Your task to perform on an android device: stop showing notifications on the lock screen Image 0: 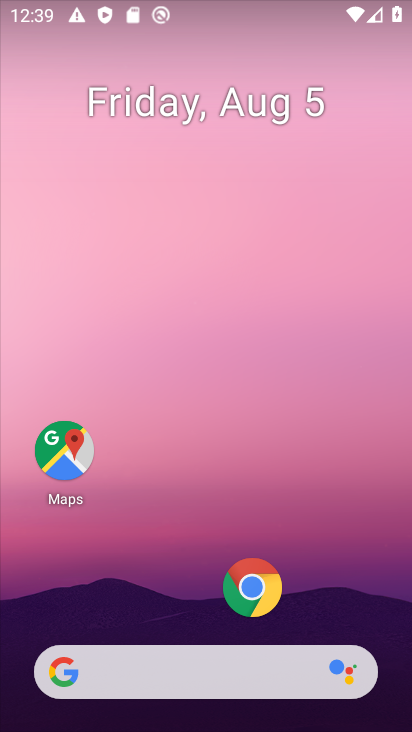
Step 0: drag from (136, 721) to (291, 64)
Your task to perform on an android device: stop showing notifications on the lock screen Image 1: 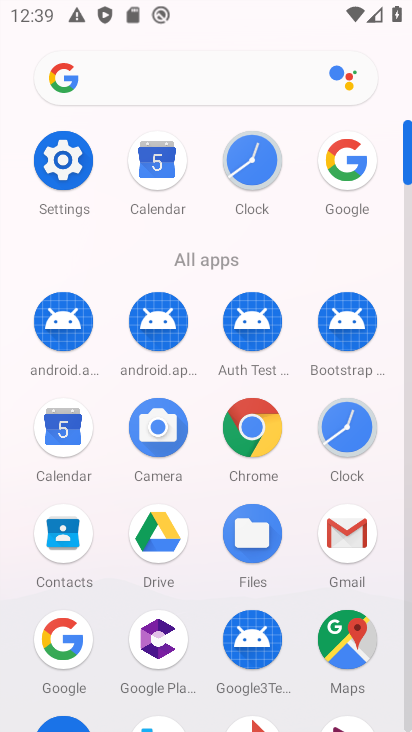
Step 1: click (64, 174)
Your task to perform on an android device: stop showing notifications on the lock screen Image 2: 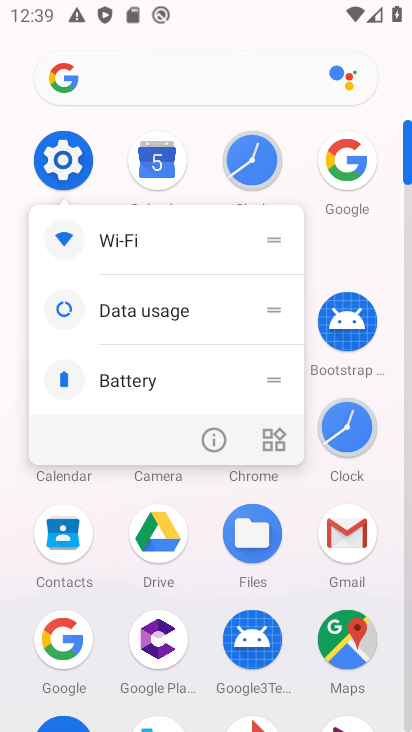
Step 2: click (64, 174)
Your task to perform on an android device: stop showing notifications on the lock screen Image 3: 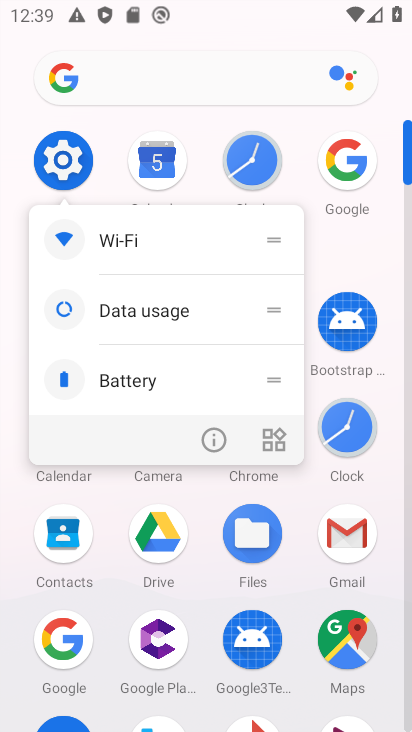
Step 3: click (66, 148)
Your task to perform on an android device: stop showing notifications on the lock screen Image 4: 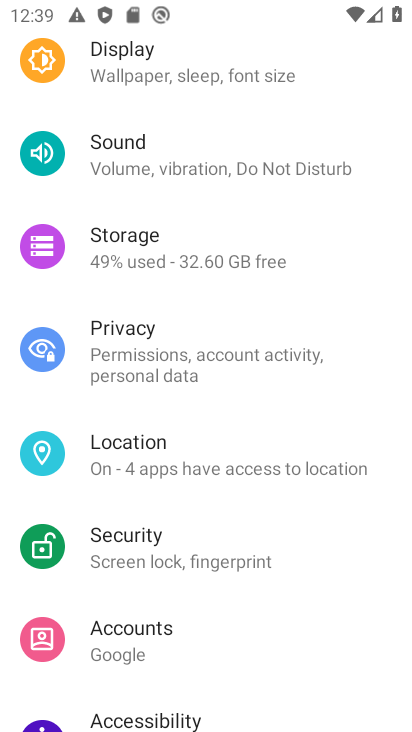
Step 4: drag from (254, 135) to (183, 704)
Your task to perform on an android device: stop showing notifications on the lock screen Image 5: 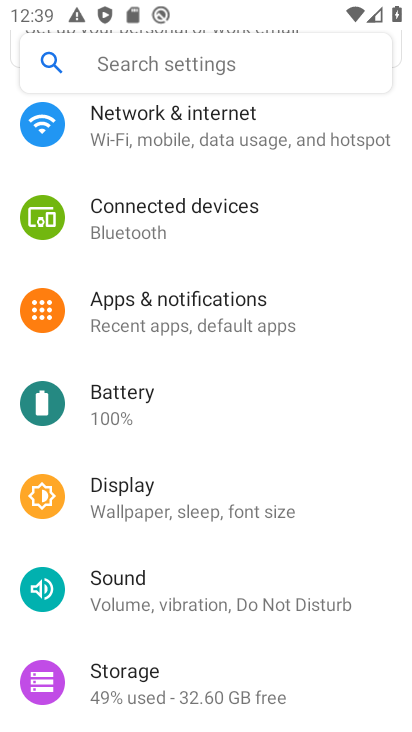
Step 5: click (219, 305)
Your task to perform on an android device: stop showing notifications on the lock screen Image 6: 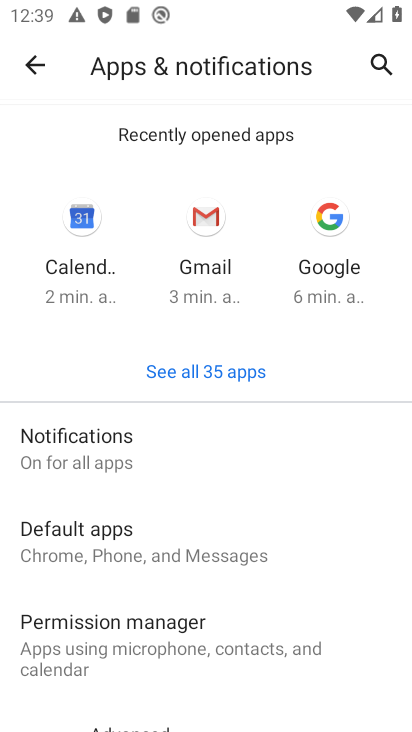
Step 6: click (131, 437)
Your task to perform on an android device: stop showing notifications on the lock screen Image 7: 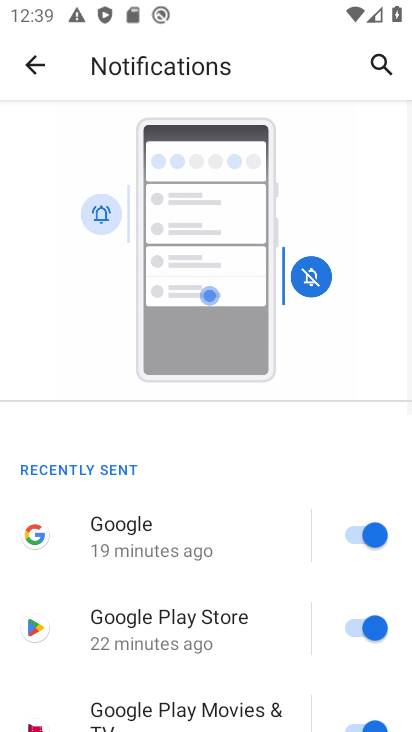
Step 7: drag from (234, 560) to (262, 124)
Your task to perform on an android device: stop showing notifications on the lock screen Image 8: 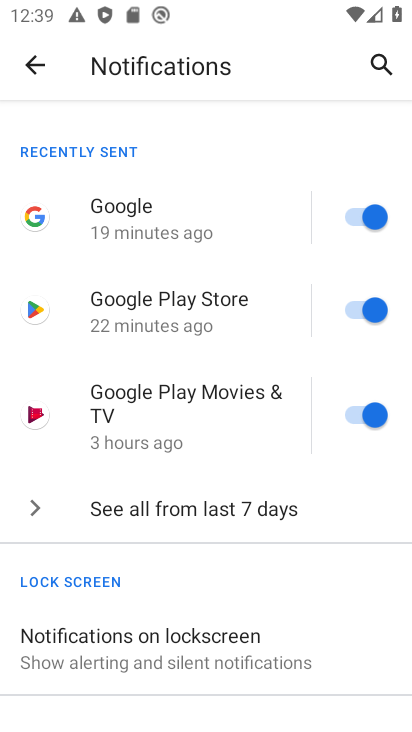
Step 8: click (231, 641)
Your task to perform on an android device: stop showing notifications on the lock screen Image 9: 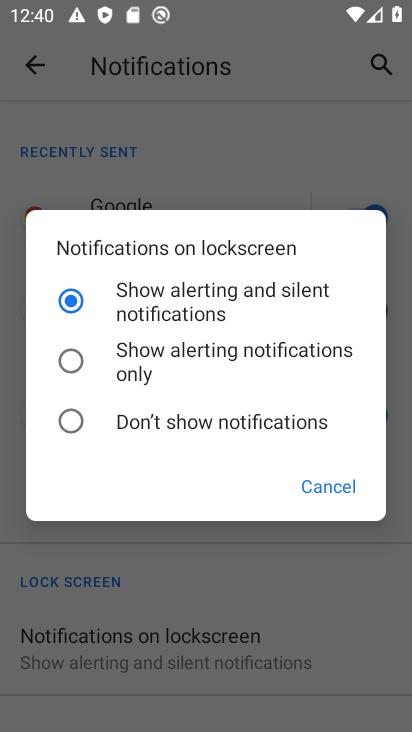
Step 9: click (287, 419)
Your task to perform on an android device: stop showing notifications on the lock screen Image 10: 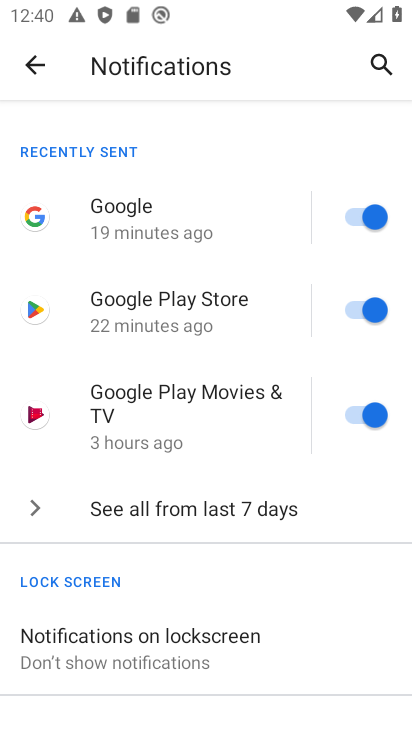
Step 10: task complete